Your task to perform on an android device: Search for the ikea billy bookcase Image 0: 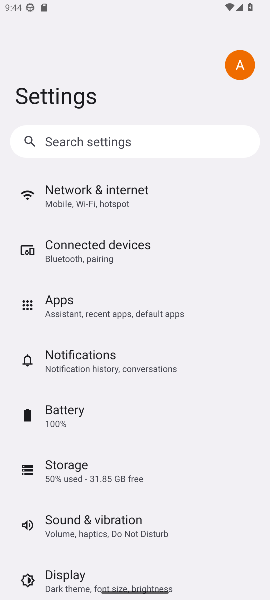
Step 0: press home button
Your task to perform on an android device: Search for the ikea billy bookcase Image 1: 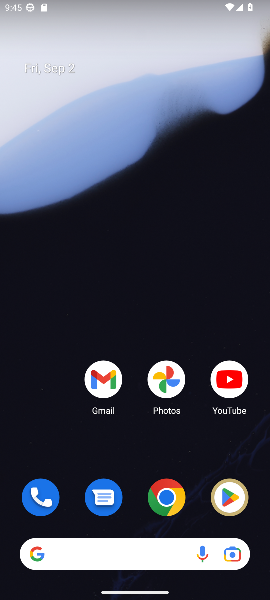
Step 1: drag from (130, 502) to (140, 35)
Your task to perform on an android device: Search for the ikea billy bookcase Image 2: 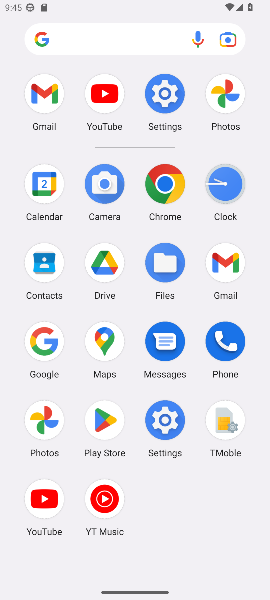
Step 2: click (42, 350)
Your task to perform on an android device: Search for the ikea billy bookcase Image 3: 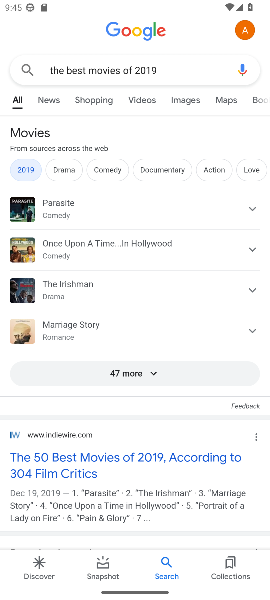
Step 3: click (168, 64)
Your task to perform on an android device: Search for the ikea billy bookcase Image 4: 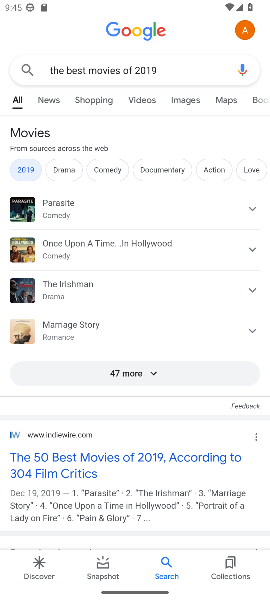
Step 4: click (168, 64)
Your task to perform on an android device: Search for the ikea billy bookcase Image 5: 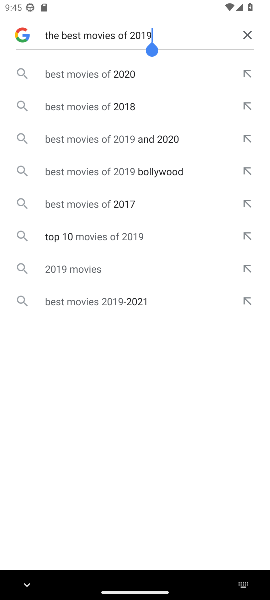
Step 5: click (250, 30)
Your task to perform on an android device: Search for the ikea billy bookcase Image 6: 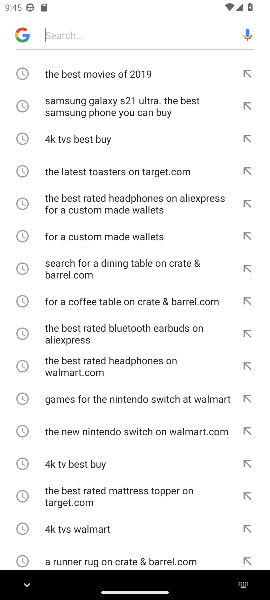
Step 6: type "the ikea billy bookcase"
Your task to perform on an android device: Search for the ikea billy bookcase Image 7: 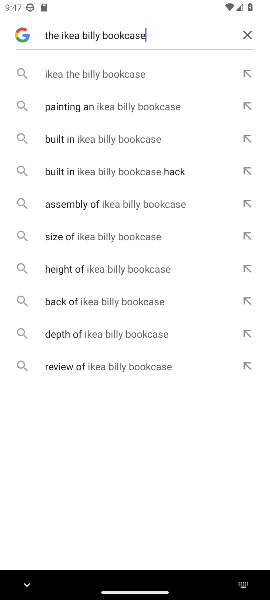
Step 7: click (96, 72)
Your task to perform on an android device: Search for the ikea billy bookcase Image 8: 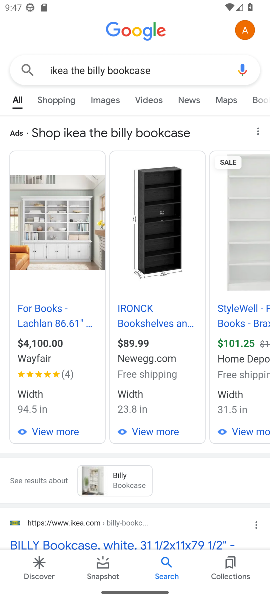
Step 8: task complete